Your task to perform on an android device: add a contact in the contacts app Image 0: 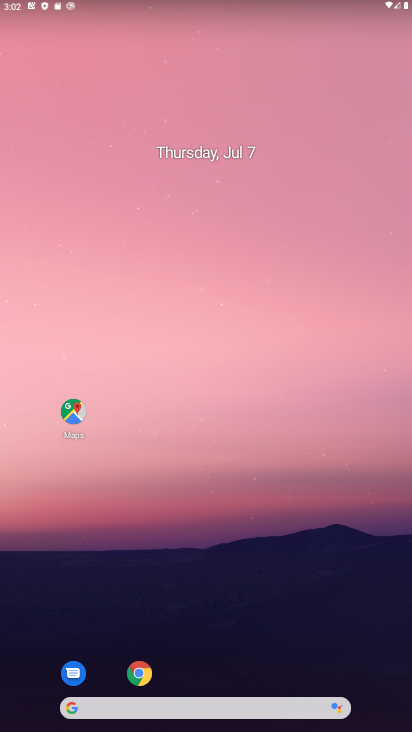
Step 0: press home button
Your task to perform on an android device: add a contact in the contacts app Image 1: 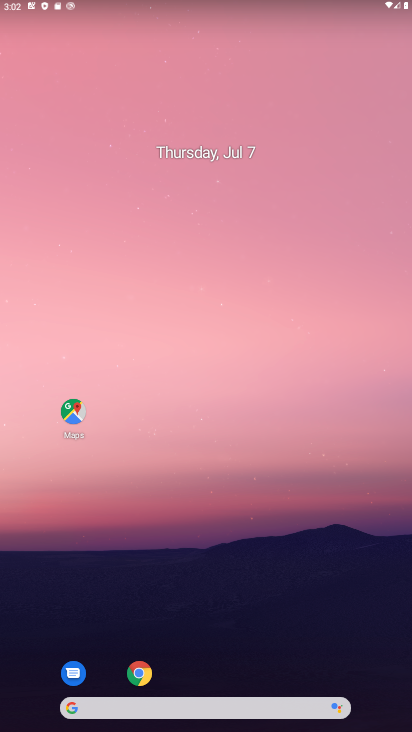
Step 1: drag from (242, 661) to (145, 107)
Your task to perform on an android device: add a contact in the contacts app Image 2: 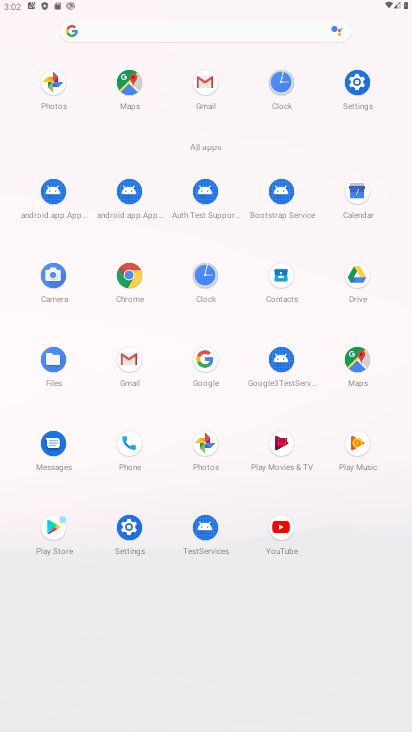
Step 2: click (280, 269)
Your task to perform on an android device: add a contact in the contacts app Image 3: 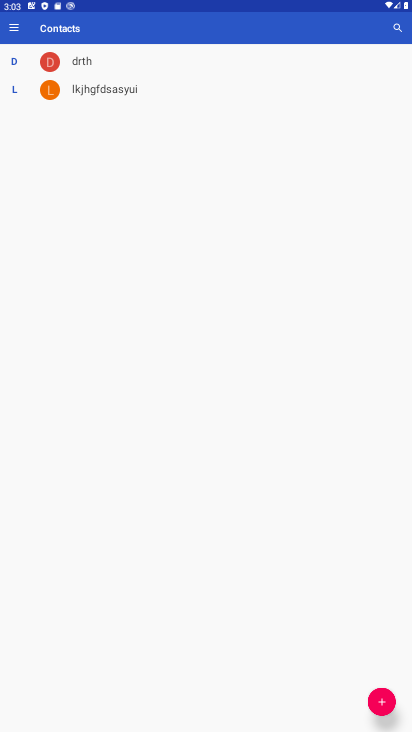
Step 3: click (386, 704)
Your task to perform on an android device: add a contact in the contacts app Image 4: 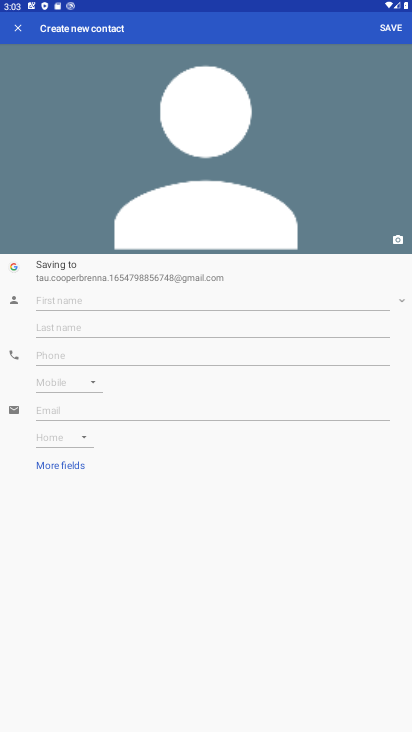
Step 4: click (82, 305)
Your task to perform on an android device: add a contact in the contacts app Image 5: 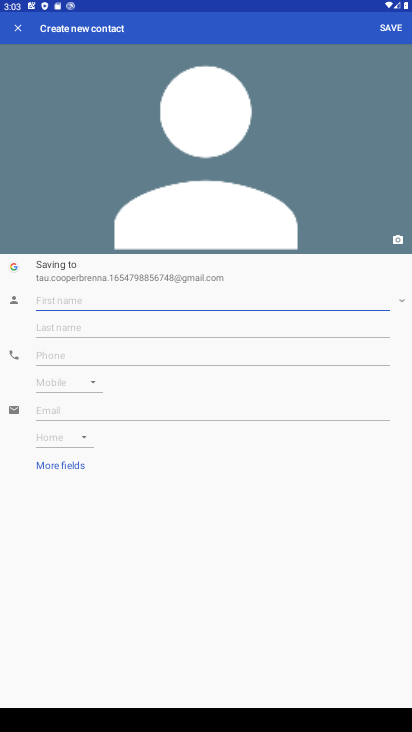
Step 5: type "ghghgh"
Your task to perform on an android device: add a contact in the contacts app Image 6: 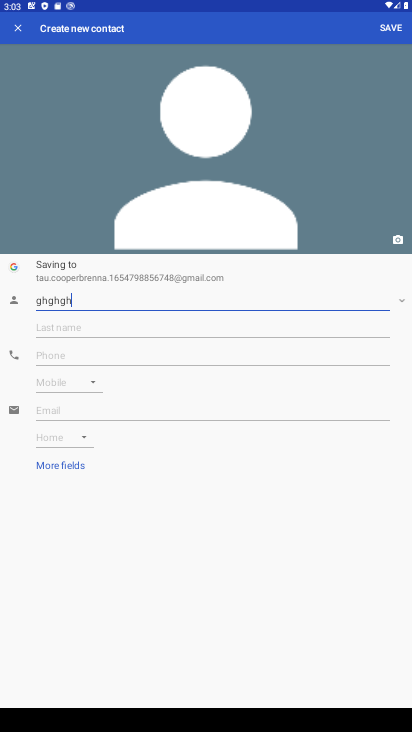
Step 6: click (71, 353)
Your task to perform on an android device: add a contact in the contacts app Image 7: 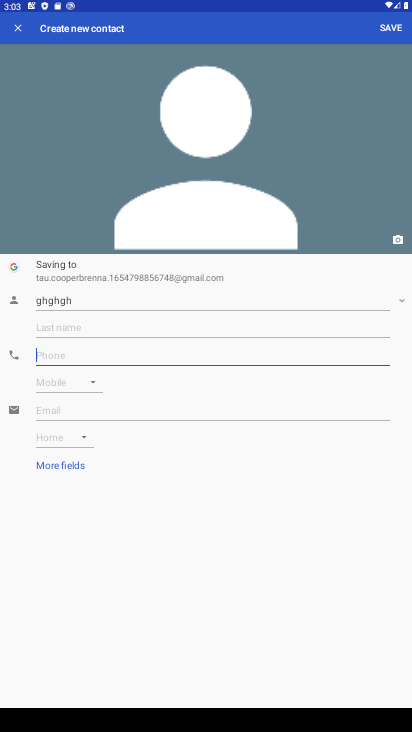
Step 7: type "6868686786"
Your task to perform on an android device: add a contact in the contacts app Image 8: 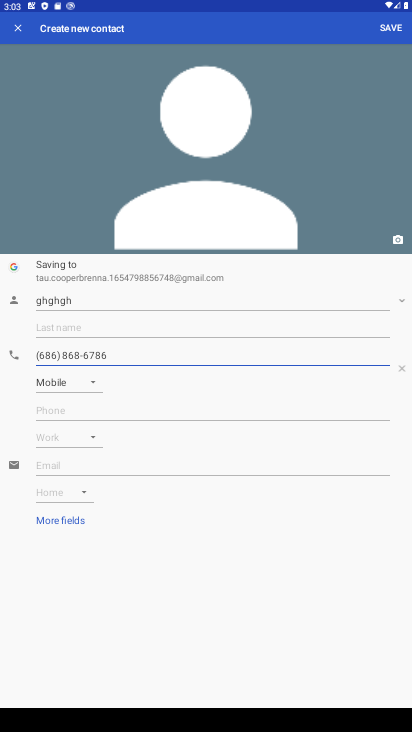
Step 8: click (384, 28)
Your task to perform on an android device: add a contact in the contacts app Image 9: 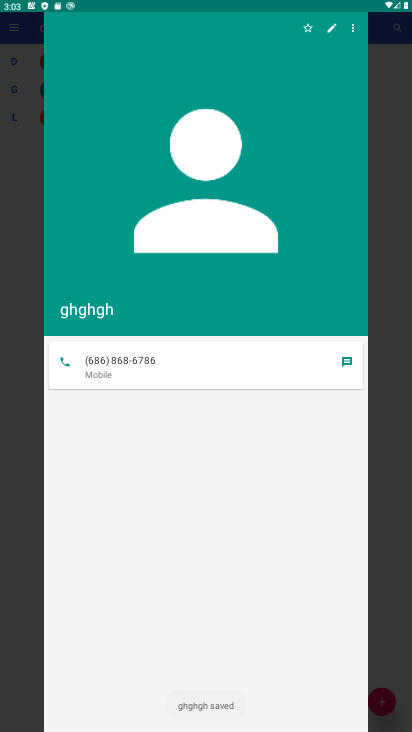
Step 9: task complete